Your task to perform on an android device: toggle data saver in the chrome app Image 0: 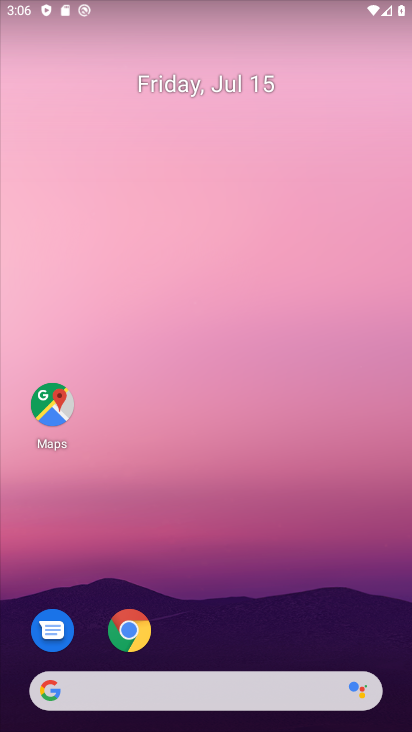
Step 0: drag from (189, 716) to (164, 107)
Your task to perform on an android device: toggle data saver in the chrome app Image 1: 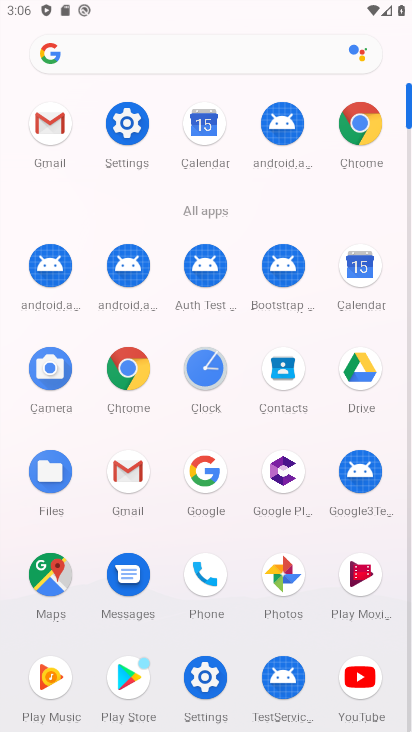
Step 1: click (364, 130)
Your task to perform on an android device: toggle data saver in the chrome app Image 2: 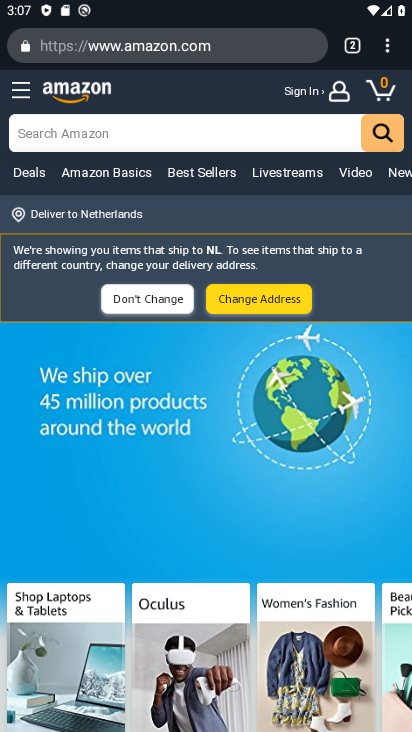
Step 2: click (381, 63)
Your task to perform on an android device: toggle data saver in the chrome app Image 3: 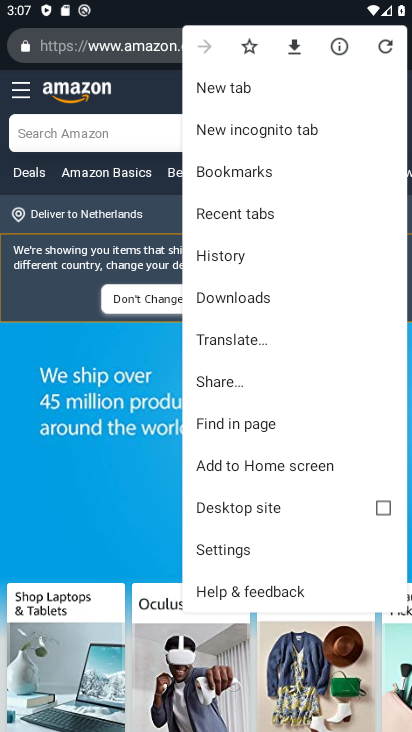
Step 3: click (245, 548)
Your task to perform on an android device: toggle data saver in the chrome app Image 4: 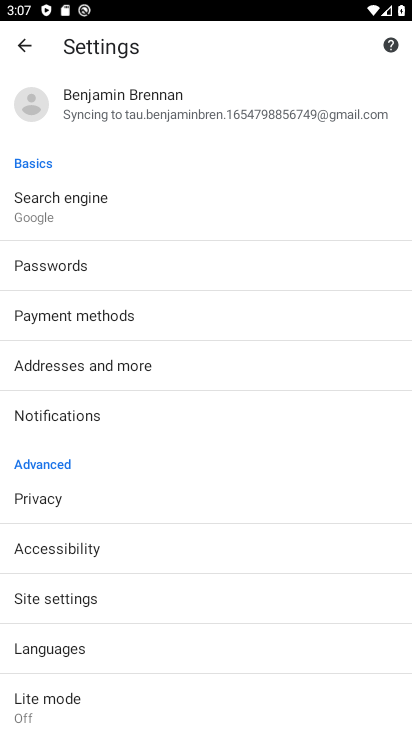
Step 4: click (74, 695)
Your task to perform on an android device: toggle data saver in the chrome app Image 5: 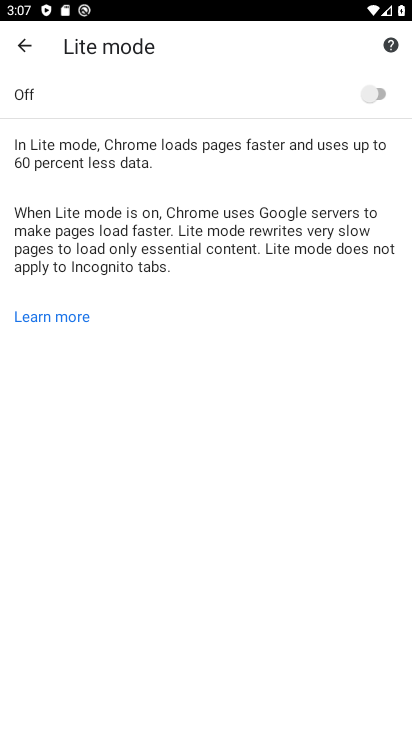
Step 5: click (379, 89)
Your task to perform on an android device: toggle data saver in the chrome app Image 6: 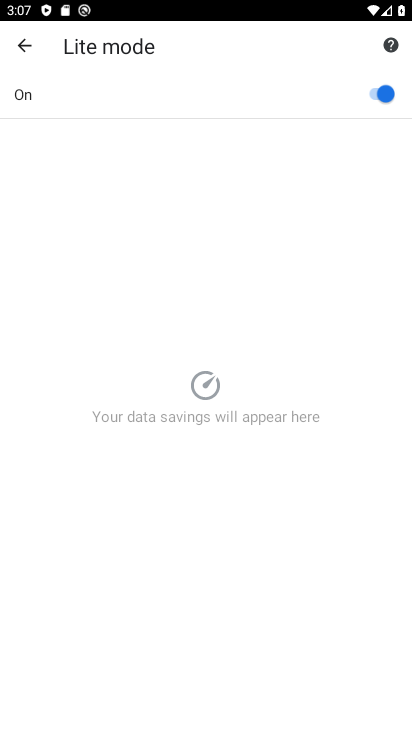
Step 6: task complete